Your task to perform on an android device: Show me recent news Image 0: 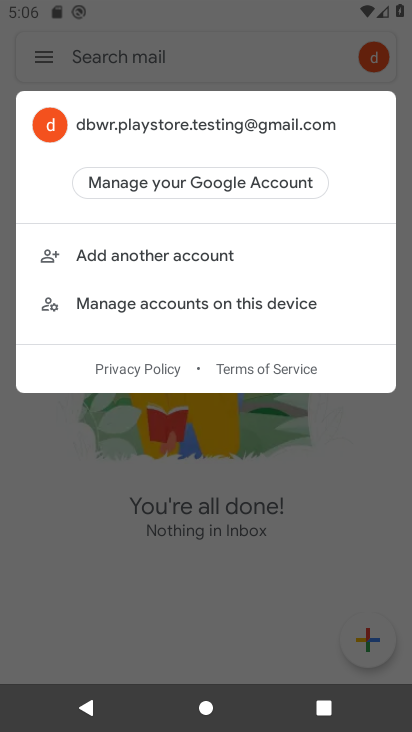
Step 0: press home button
Your task to perform on an android device: Show me recent news Image 1: 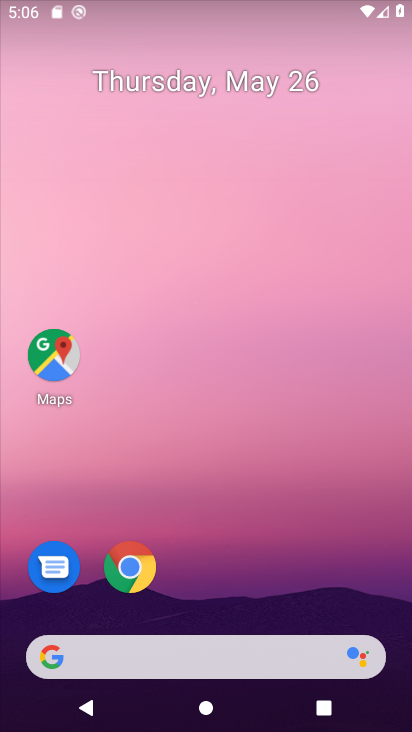
Step 1: click (199, 652)
Your task to perform on an android device: Show me recent news Image 2: 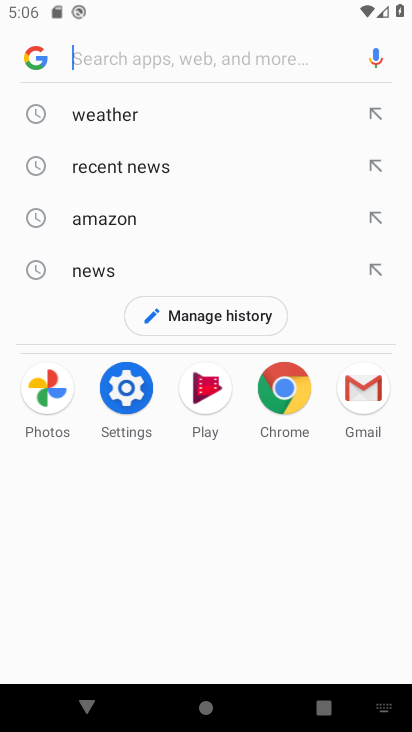
Step 2: click (114, 165)
Your task to perform on an android device: Show me recent news Image 3: 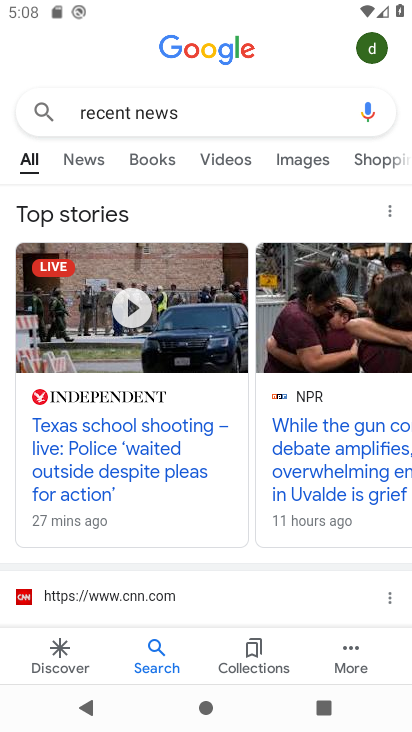
Step 3: task complete